Your task to perform on an android device: Open Maps and search for coffee Image 0: 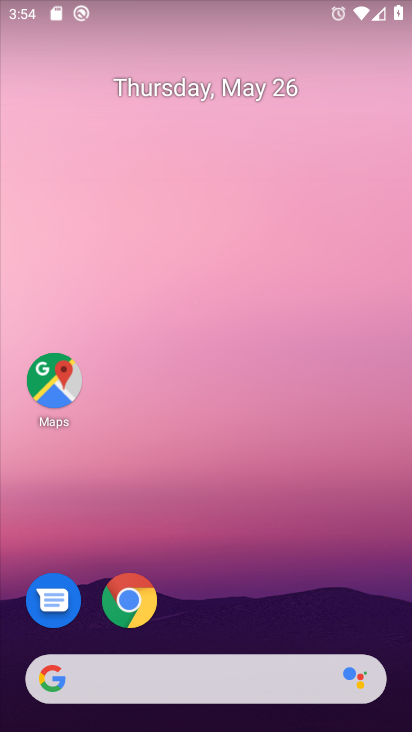
Step 0: click (71, 379)
Your task to perform on an android device: Open Maps and search for coffee Image 1: 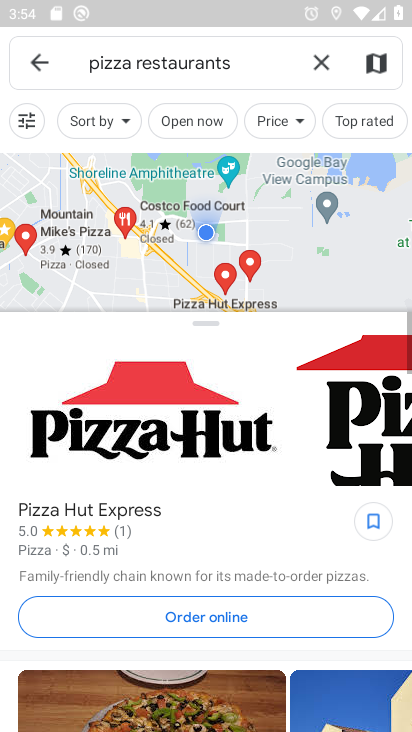
Step 1: click (325, 59)
Your task to perform on an android device: Open Maps and search for coffee Image 2: 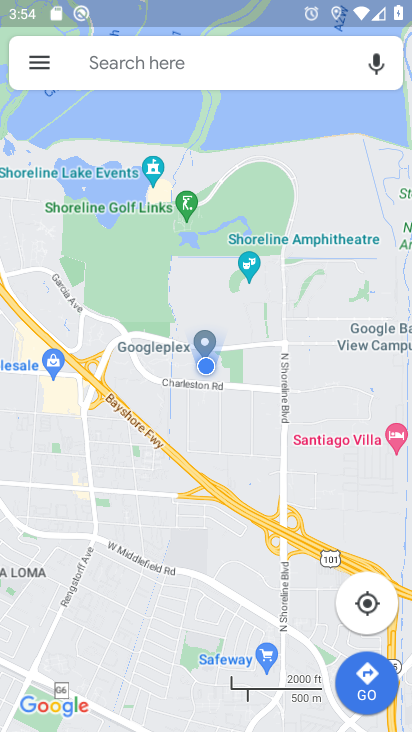
Step 2: click (177, 55)
Your task to perform on an android device: Open Maps and search for coffee Image 3: 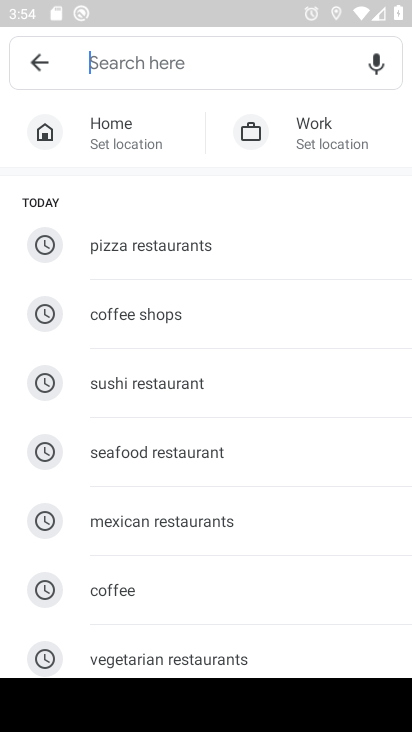
Step 3: type "coffee"
Your task to perform on an android device: Open Maps and search for coffee Image 4: 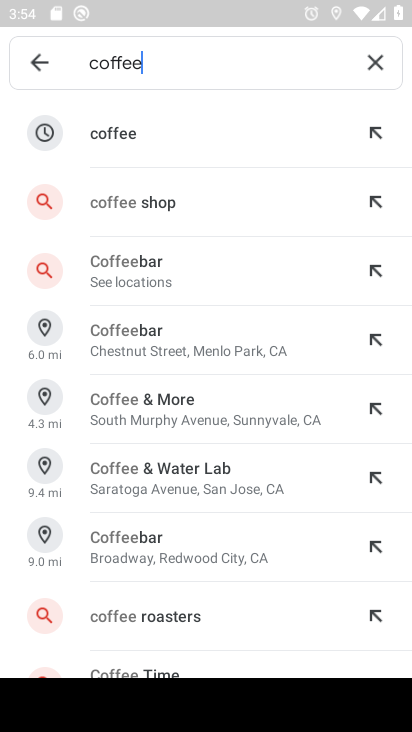
Step 4: click (146, 131)
Your task to perform on an android device: Open Maps and search for coffee Image 5: 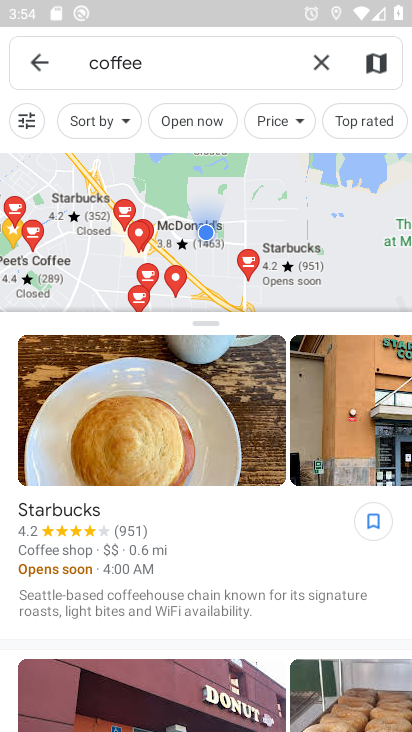
Step 5: task complete